Your task to perform on an android device: Go to internet settings Image 0: 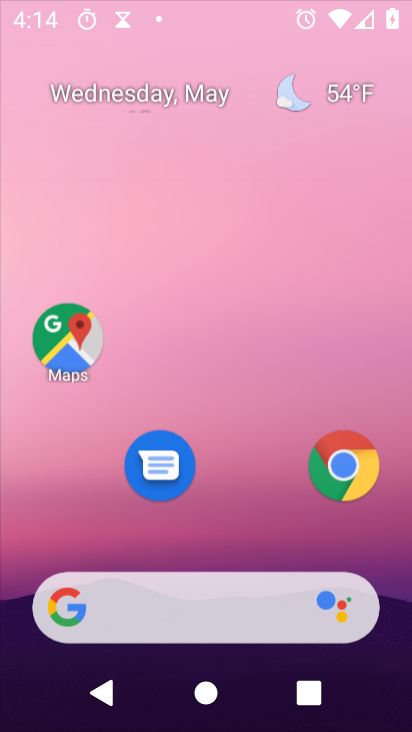
Step 0: click (354, 484)
Your task to perform on an android device: Go to internet settings Image 1: 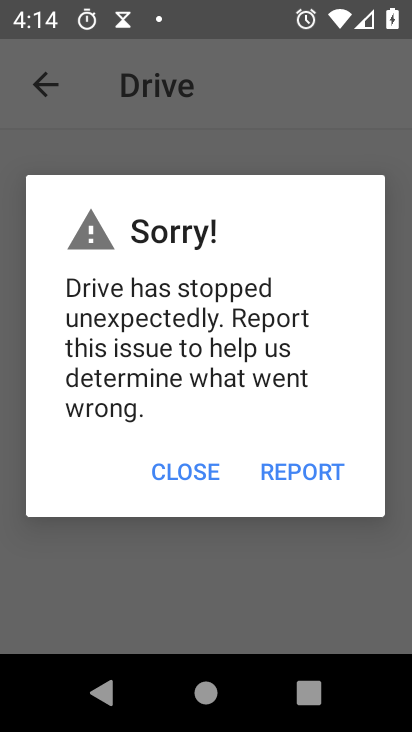
Step 1: press home button
Your task to perform on an android device: Go to internet settings Image 2: 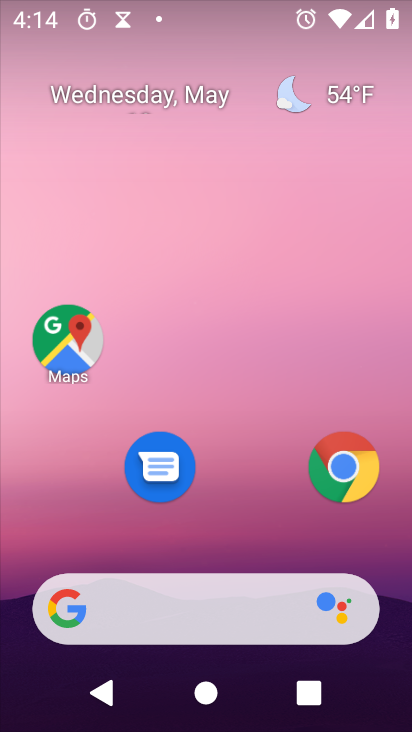
Step 2: drag from (267, 548) to (197, 171)
Your task to perform on an android device: Go to internet settings Image 3: 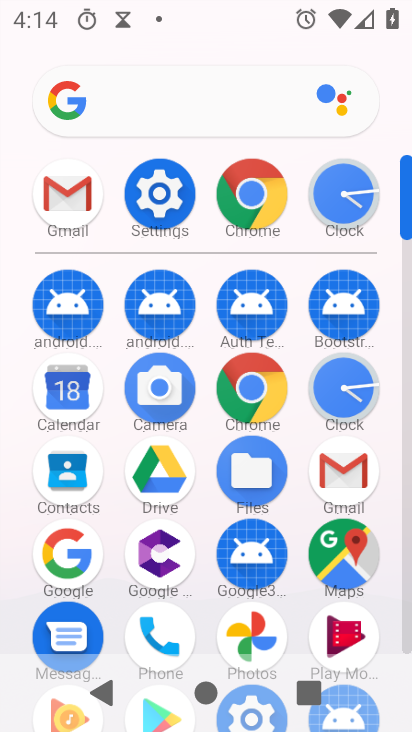
Step 3: click (179, 207)
Your task to perform on an android device: Go to internet settings Image 4: 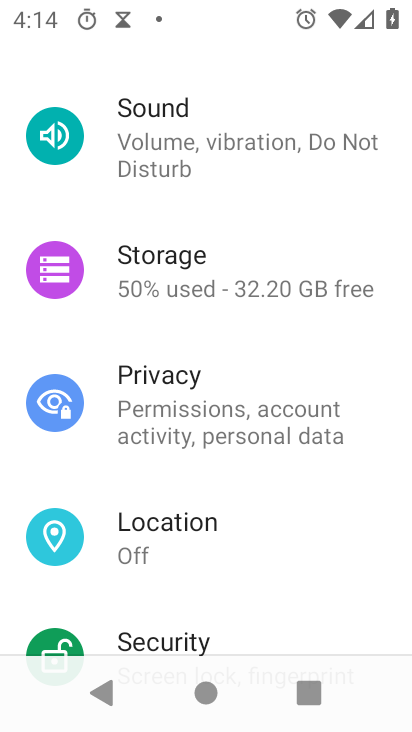
Step 4: drag from (186, 219) to (194, 658)
Your task to perform on an android device: Go to internet settings Image 5: 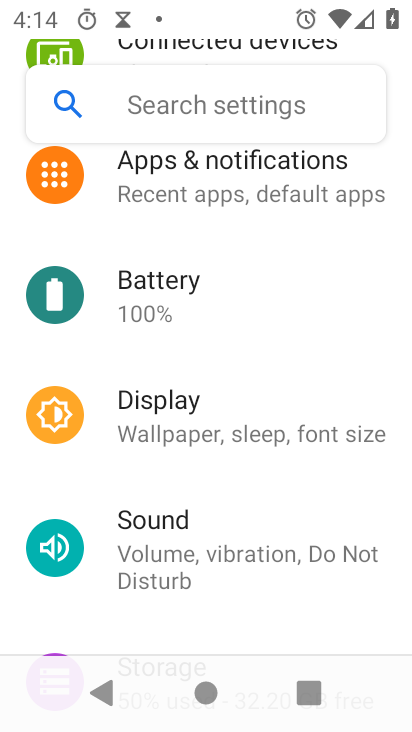
Step 5: drag from (219, 308) to (249, 625)
Your task to perform on an android device: Go to internet settings Image 6: 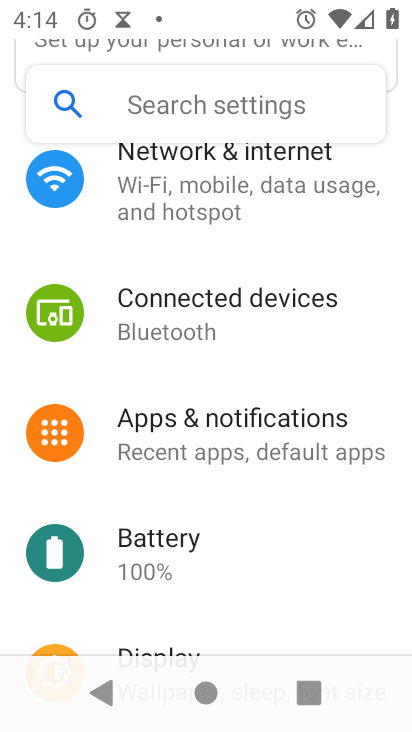
Step 6: click (197, 195)
Your task to perform on an android device: Go to internet settings Image 7: 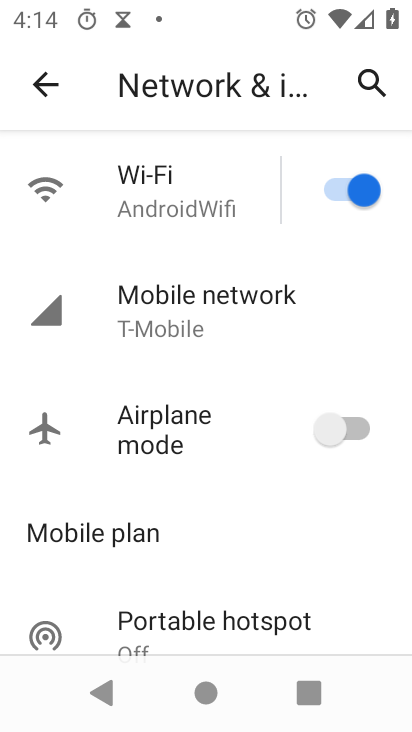
Step 7: task complete